Your task to perform on an android device: Open Wikipedia Image 0: 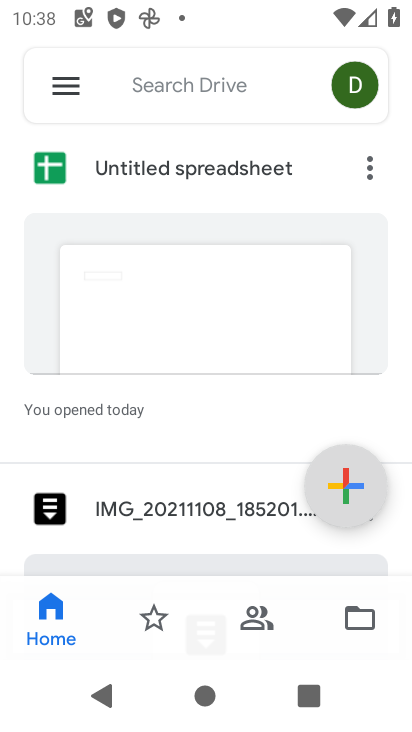
Step 0: press home button
Your task to perform on an android device: Open Wikipedia Image 1: 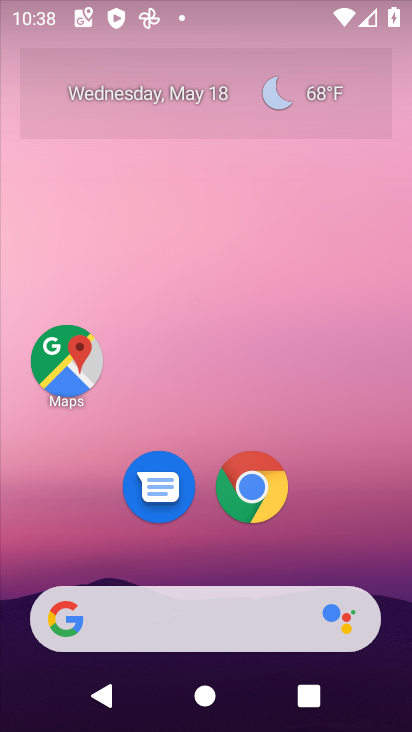
Step 1: drag from (381, 509) to (373, 216)
Your task to perform on an android device: Open Wikipedia Image 2: 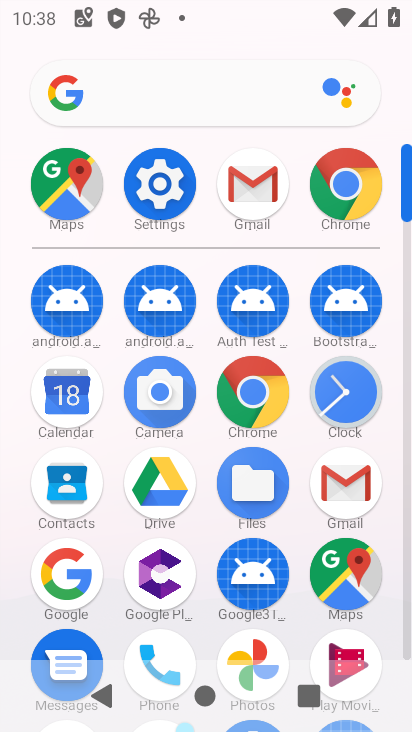
Step 2: click (238, 411)
Your task to perform on an android device: Open Wikipedia Image 3: 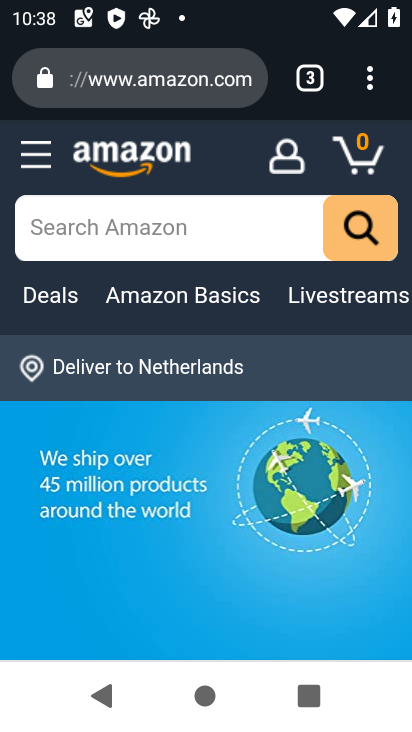
Step 3: drag from (376, 93) to (0, 135)
Your task to perform on an android device: Open Wikipedia Image 4: 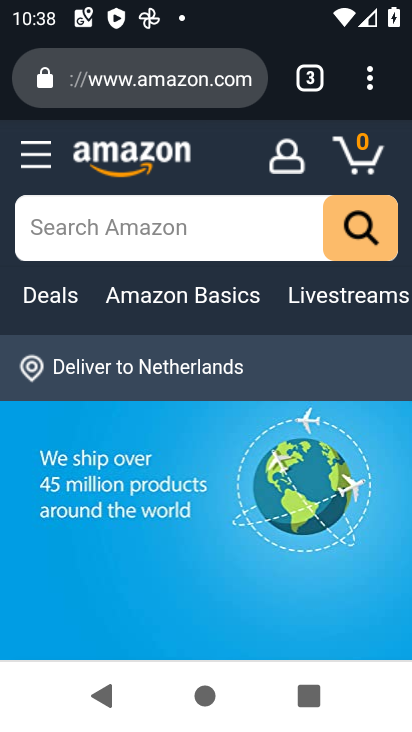
Step 4: click (62, 86)
Your task to perform on an android device: Open Wikipedia Image 5: 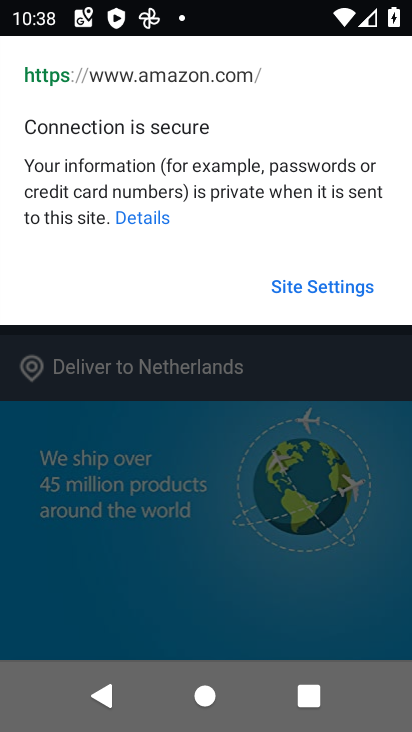
Step 5: click (113, 699)
Your task to perform on an android device: Open Wikipedia Image 6: 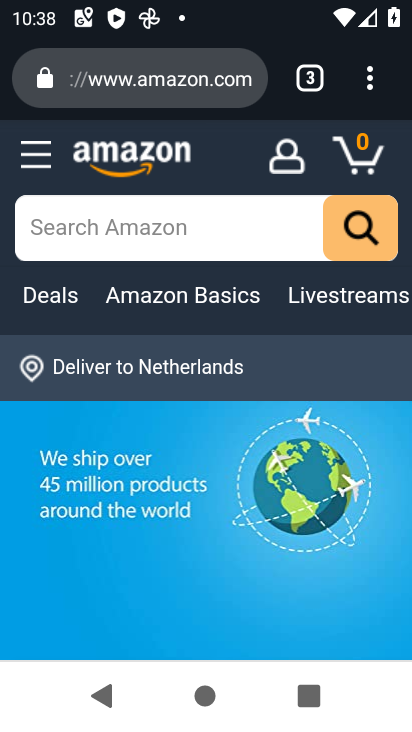
Step 6: click (319, 81)
Your task to perform on an android device: Open Wikipedia Image 7: 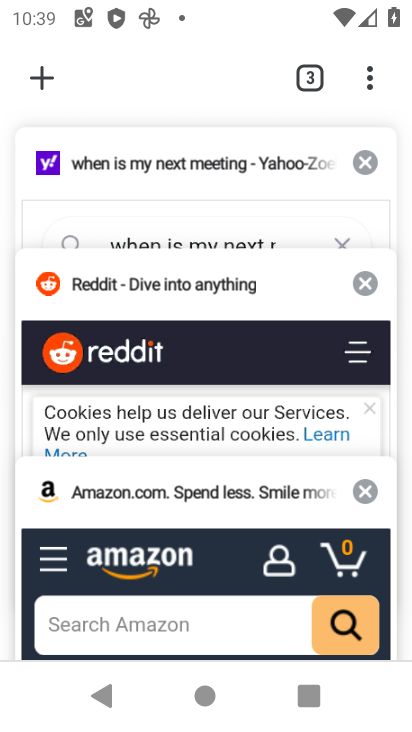
Step 7: click (34, 73)
Your task to perform on an android device: Open Wikipedia Image 8: 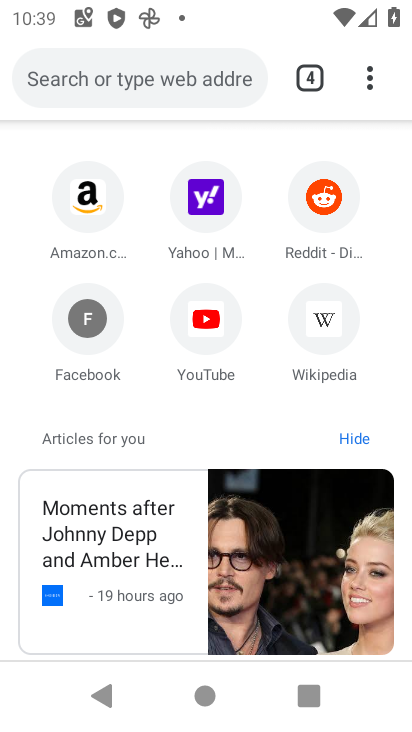
Step 8: click (326, 323)
Your task to perform on an android device: Open Wikipedia Image 9: 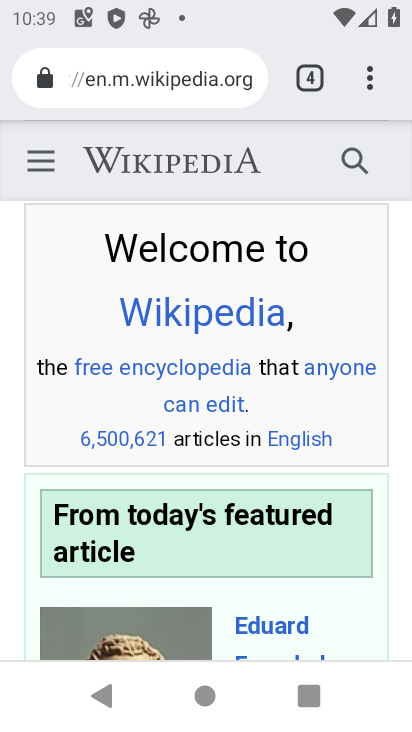
Step 9: task complete